Your task to perform on an android device: Open Maps and search for coffee Image 0: 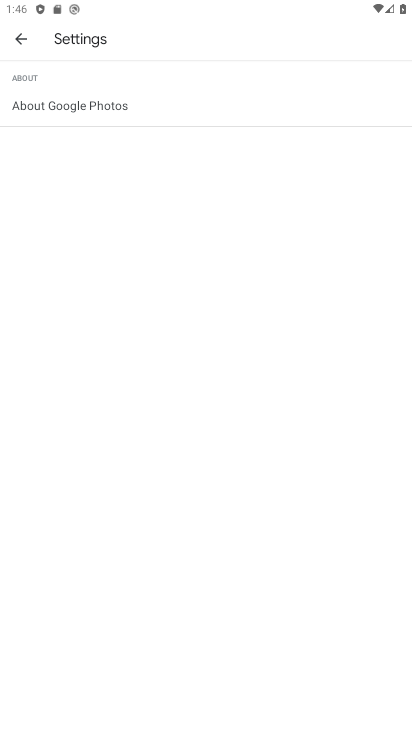
Step 0: press home button
Your task to perform on an android device: Open Maps and search for coffee Image 1: 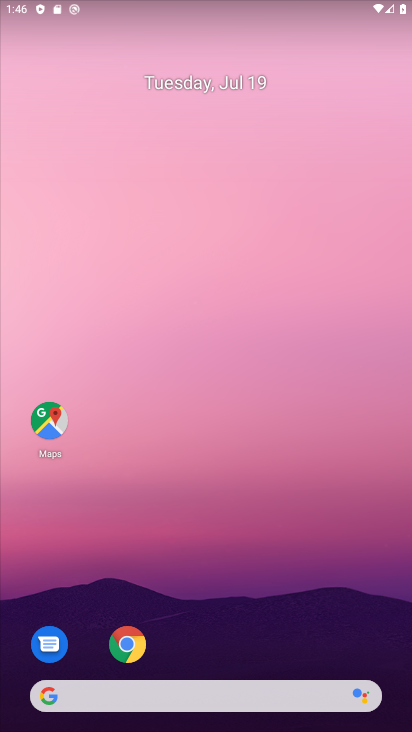
Step 1: click (55, 440)
Your task to perform on an android device: Open Maps and search for coffee Image 2: 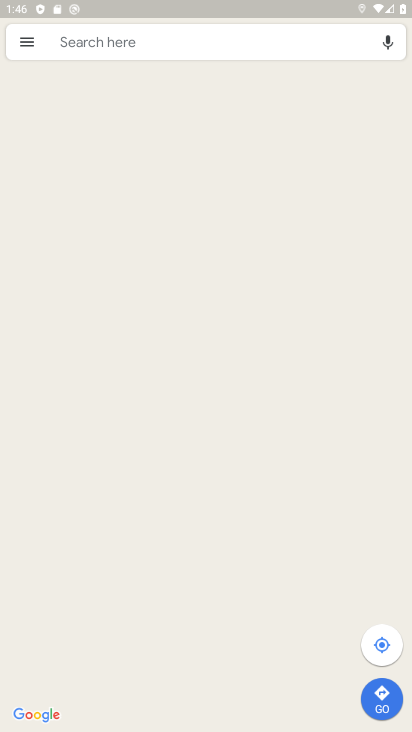
Step 2: click (160, 40)
Your task to perform on an android device: Open Maps and search for coffee Image 3: 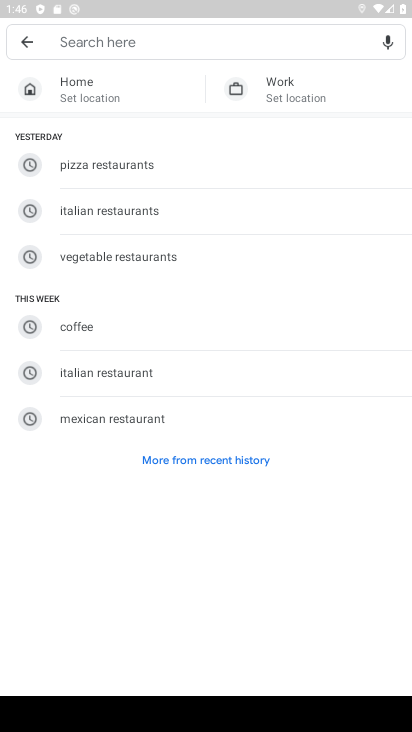
Step 3: type "coffee"
Your task to perform on an android device: Open Maps and search for coffee Image 4: 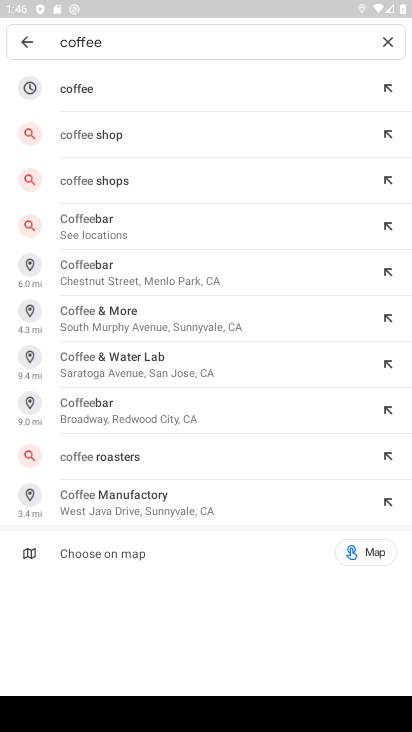
Step 4: click (83, 92)
Your task to perform on an android device: Open Maps and search for coffee Image 5: 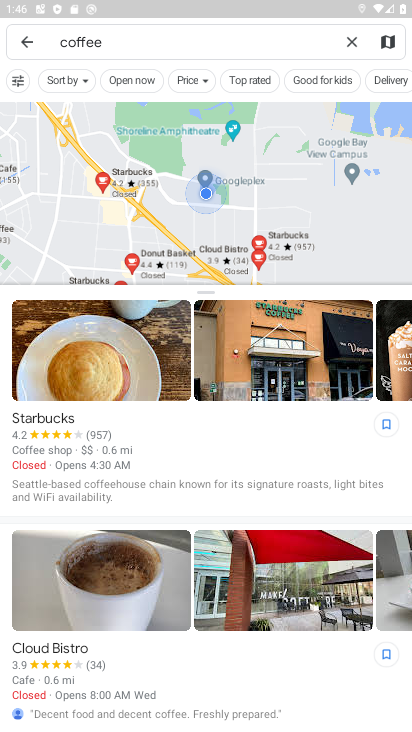
Step 5: task complete